Your task to perform on an android device: Go to CNN.com Image 0: 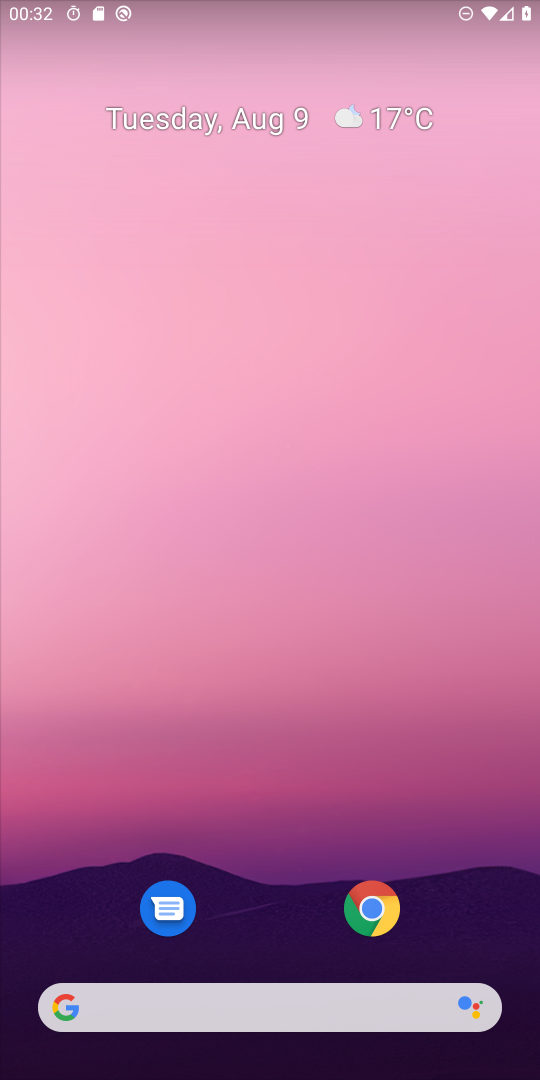
Step 0: drag from (453, 932) to (226, 86)
Your task to perform on an android device: Go to CNN.com Image 1: 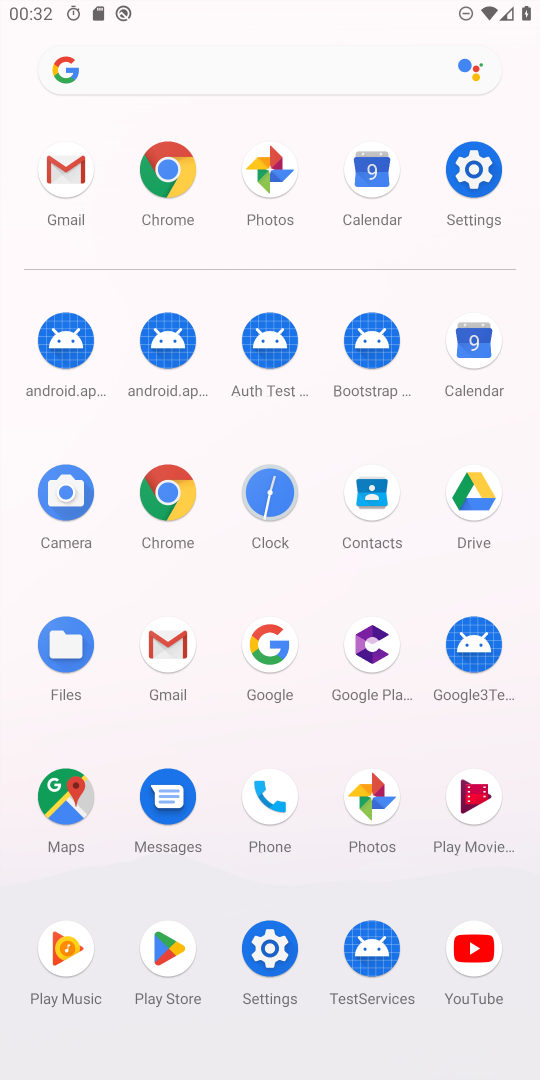
Step 1: click (174, 178)
Your task to perform on an android device: Go to CNN.com Image 2: 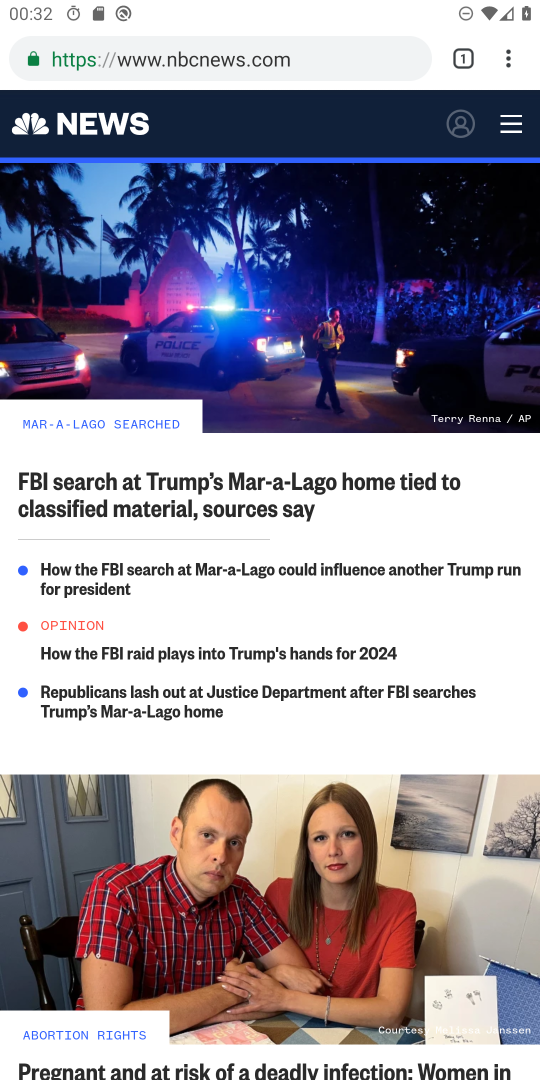
Step 2: click (250, 64)
Your task to perform on an android device: Go to CNN.com Image 3: 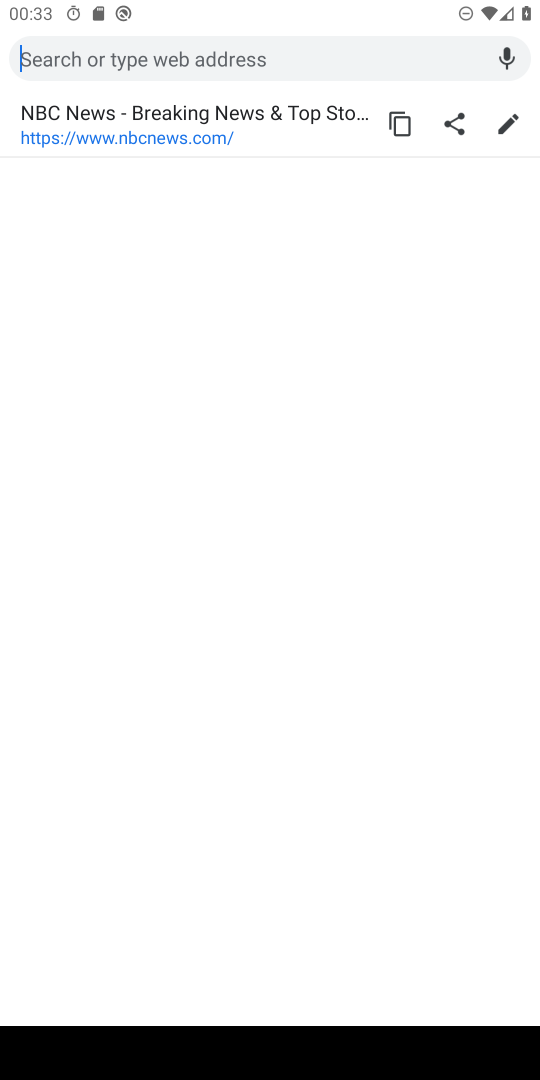
Step 3: type "cnn.com"
Your task to perform on an android device: Go to CNN.com Image 4: 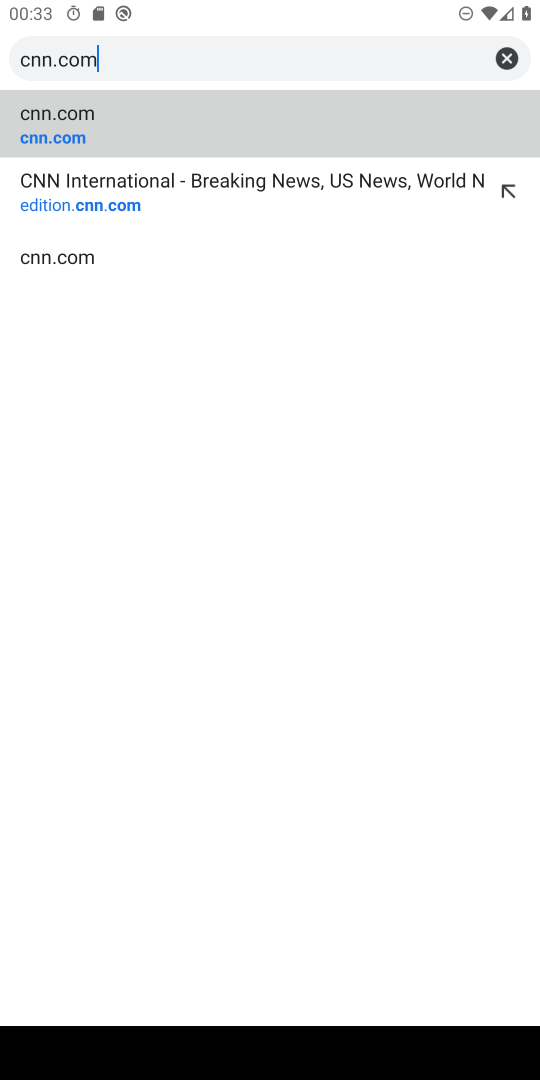
Step 4: click (201, 116)
Your task to perform on an android device: Go to CNN.com Image 5: 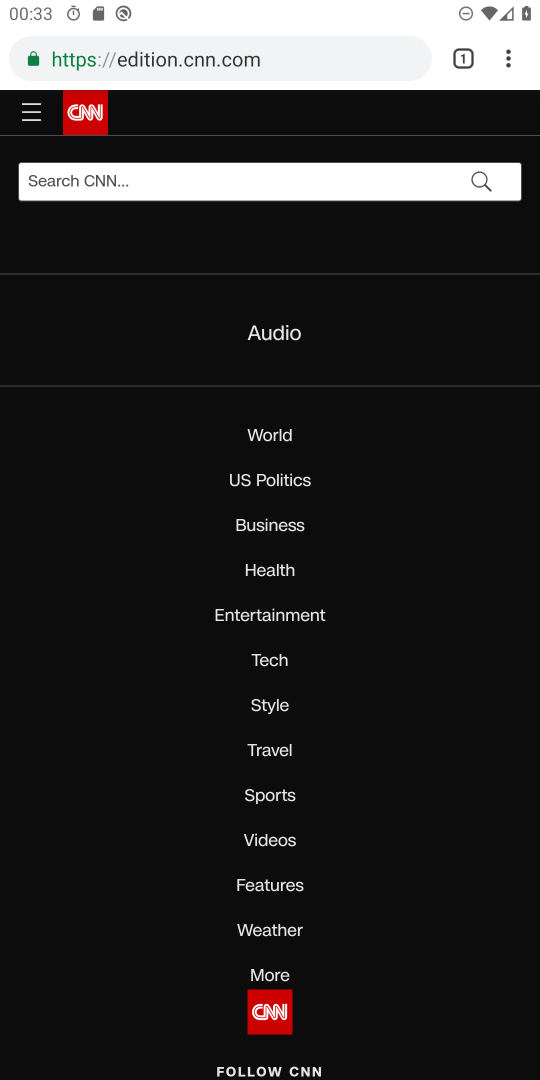
Step 5: task complete